Your task to perform on an android device: set the timer Image 0: 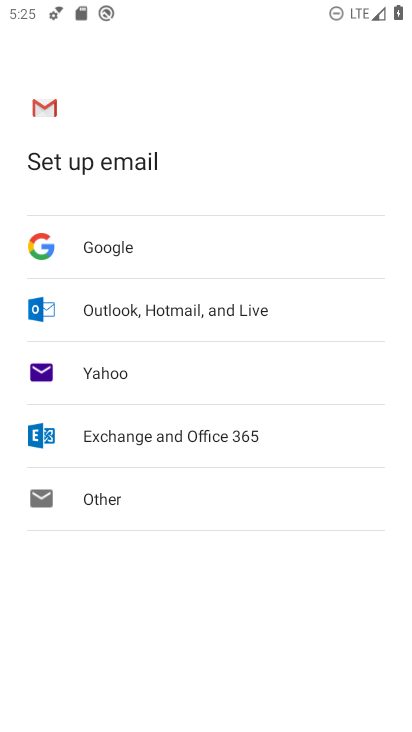
Step 0: press home button
Your task to perform on an android device: set the timer Image 1: 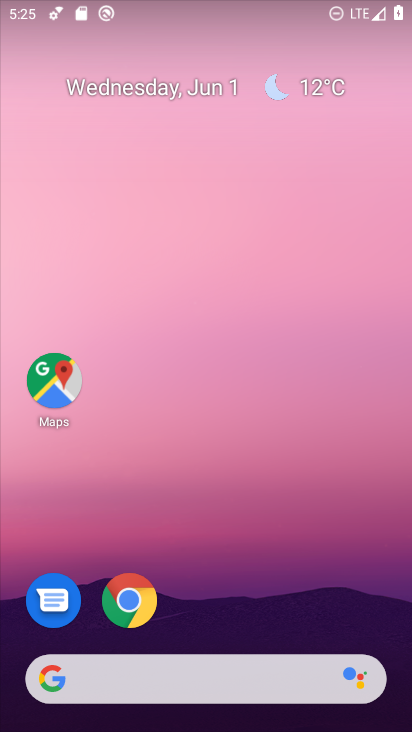
Step 1: drag from (395, 620) to (329, 211)
Your task to perform on an android device: set the timer Image 2: 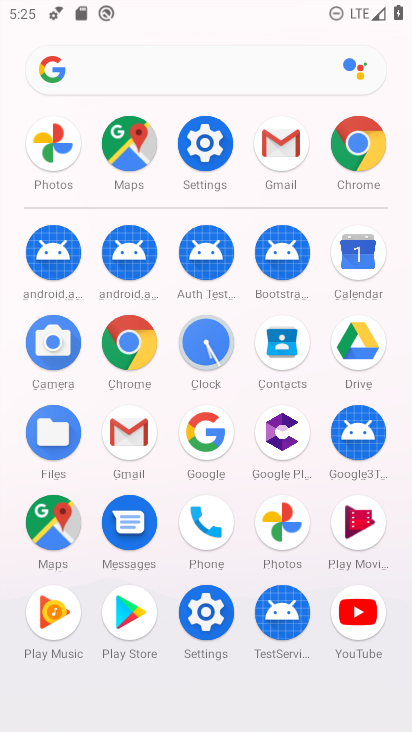
Step 2: click (204, 342)
Your task to perform on an android device: set the timer Image 3: 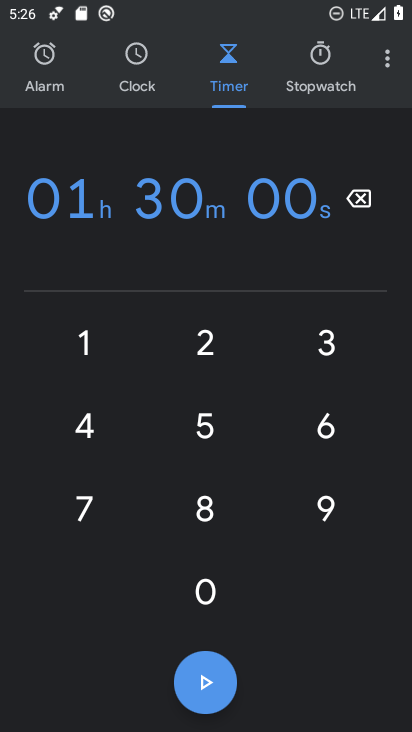
Step 3: task complete